Your task to perform on an android device: Is it going to rain tomorrow? Image 0: 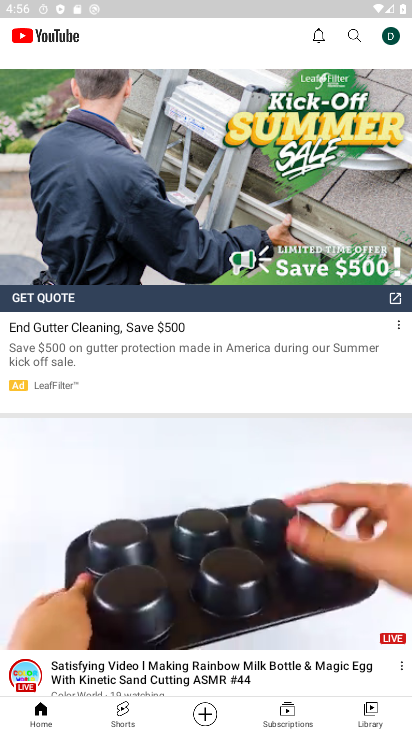
Step 0: press back button
Your task to perform on an android device: Is it going to rain tomorrow? Image 1: 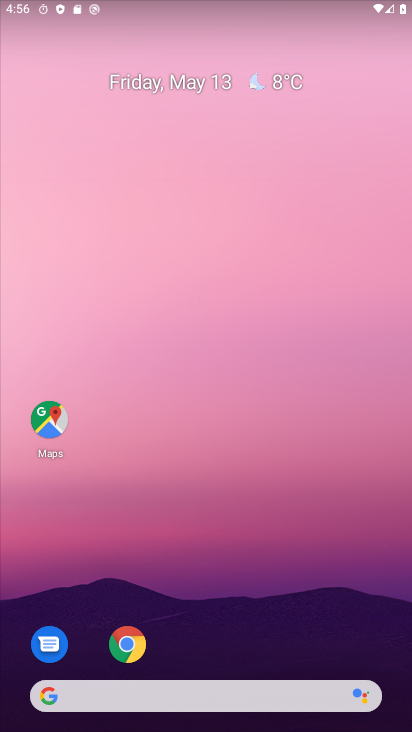
Step 1: drag from (258, 648) to (286, 138)
Your task to perform on an android device: Is it going to rain tomorrow? Image 2: 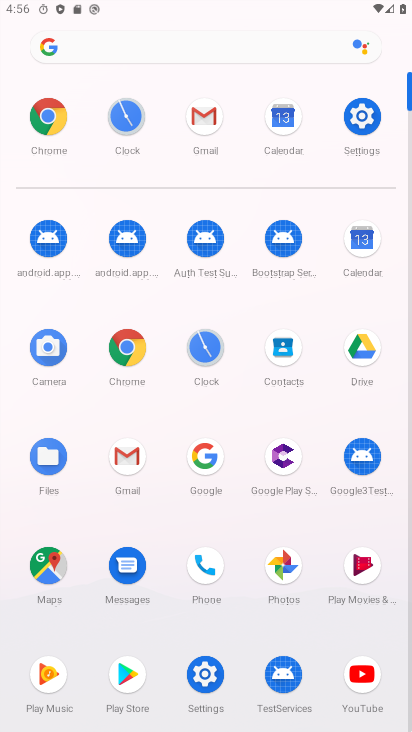
Step 2: click (211, 458)
Your task to perform on an android device: Is it going to rain tomorrow? Image 3: 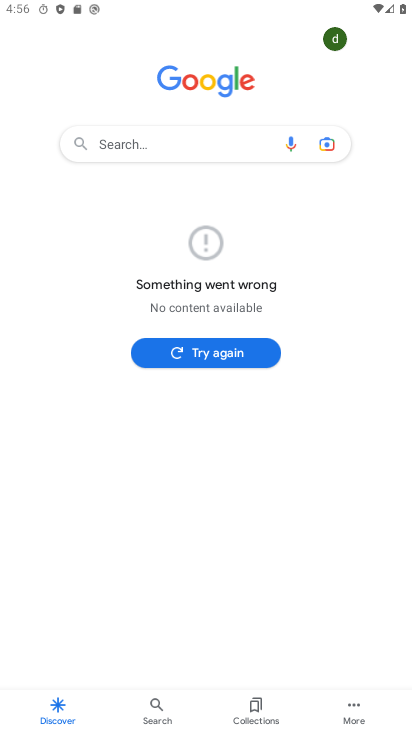
Step 3: click (225, 354)
Your task to perform on an android device: Is it going to rain tomorrow? Image 4: 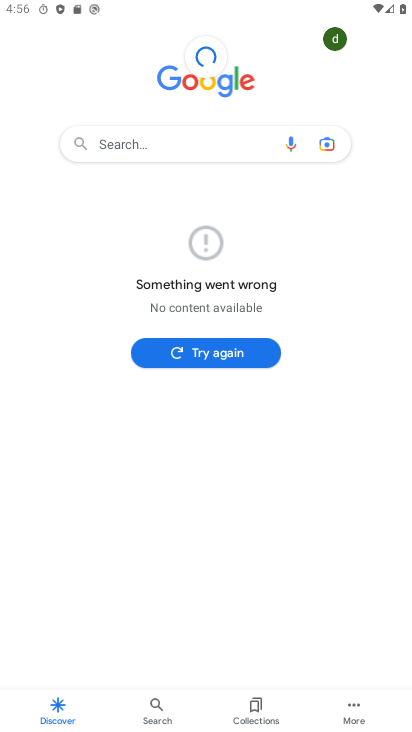
Step 4: click (190, 141)
Your task to perform on an android device: Is it going to rain tomorrow? Image 5: 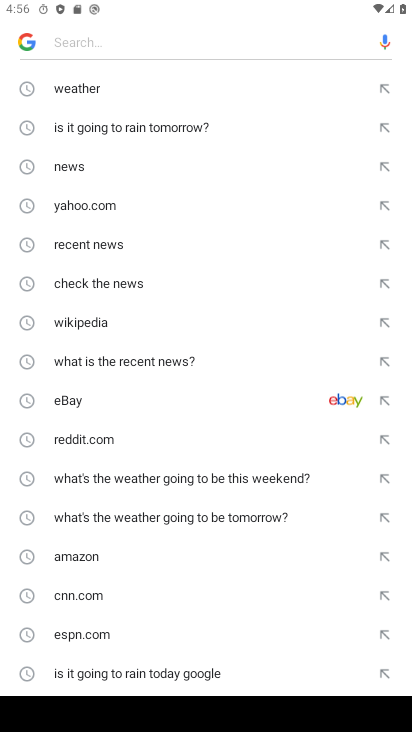
Step 5: click (111, 83)
Your task to perform on an android device: Is it going to rain tomorrow? Image 6: 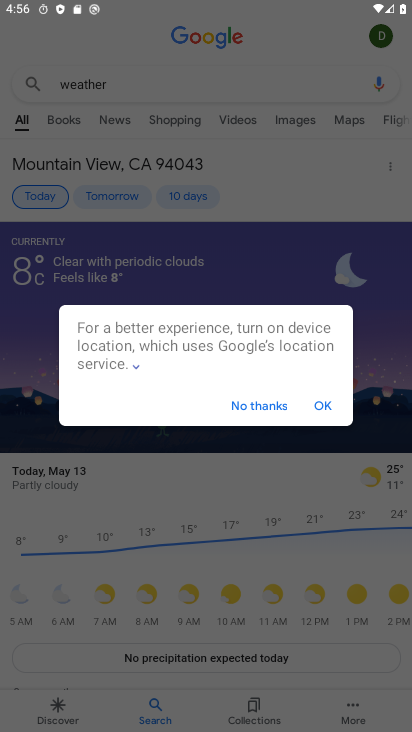
Step 6: click (315, 416)
Your task to perform on an android device: Is it going to rain tomorrow? Image 7: 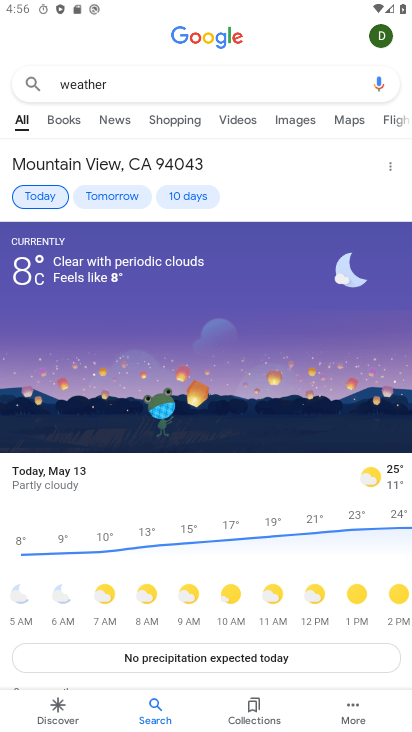
Step 7: click (113, 199)
Your task to perform on an android device: Is it going to rain tomorrow? Image 8: 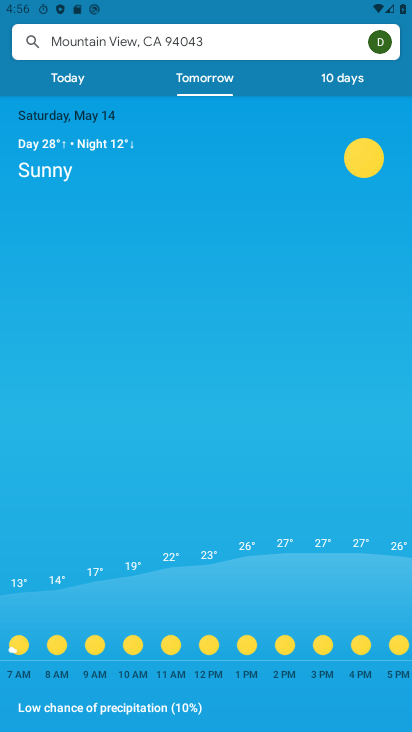
Step 8: task complete